Your task to perform on an android device: Open internet settings Image 0: 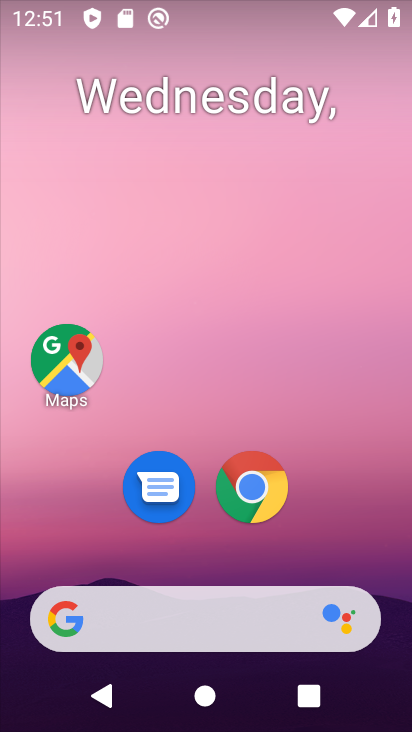
Step 0: drag from (207, 555) to (278, 133)
Your task to perform on an android device: Open internet settings Image 1: 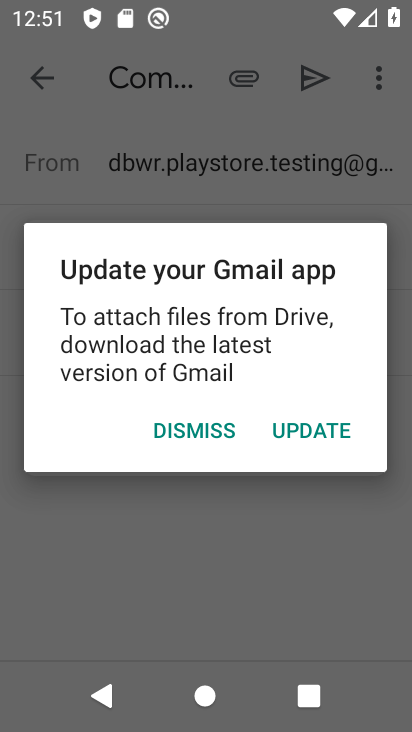
Step 1: press home button
Your task to perform on an android device: Open internet settings Image 2: 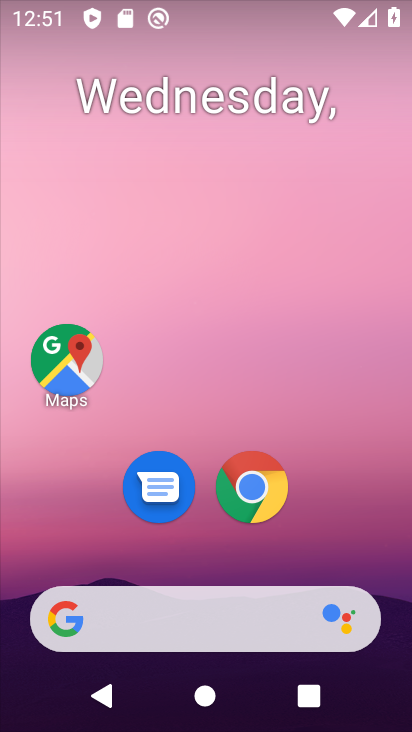
Step 2: drag from (196, 573) to (7, 229)
Your task to perform on an android device: Open internet settings Image 3: 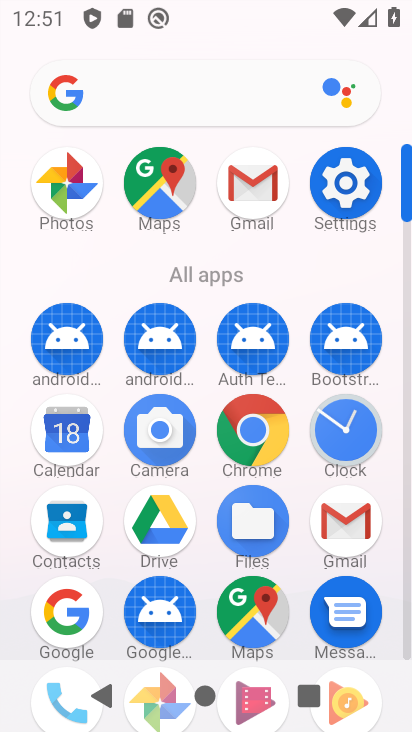
Step 3: click (348, 198)
Your task to perform on an android device: Open internet settings Image 4: 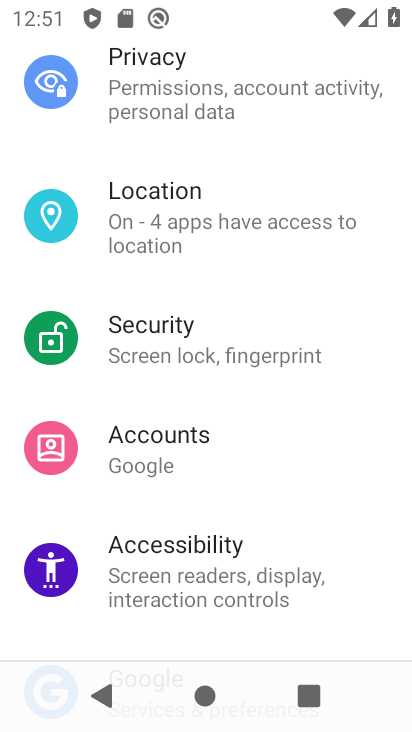
Step 4: drag from (182, 168) to (184, 546)
Your task to perform on an android device: Open internet settings Image 5: 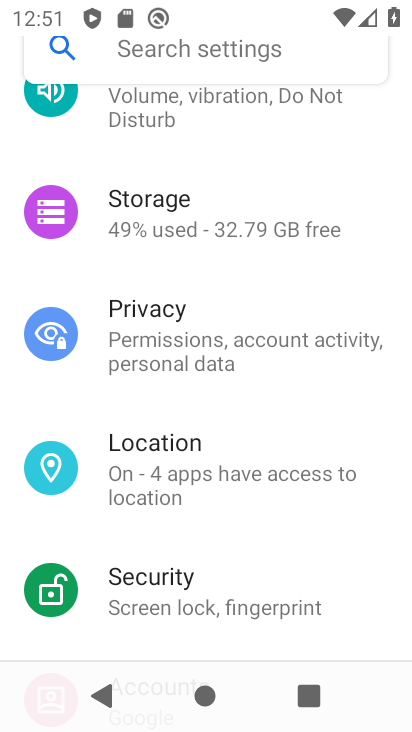
Step 5: drag from (275, 190) to (256, 627)
Your task to perform on an android device: Open internet settings Image 6: 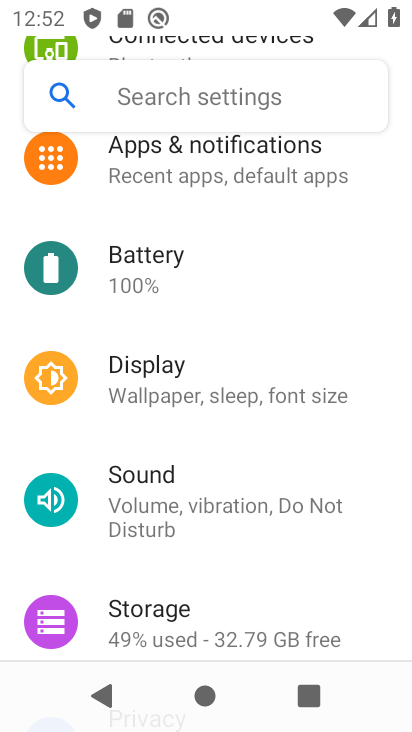
Step 6: drag from (236, 282) to (213, 547)
Your task to perform on an android device: Open internet settings Image 7: 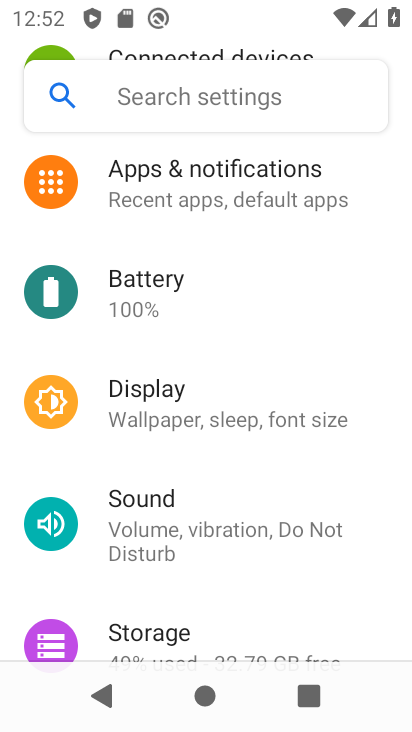
Step 7: drag from (270, 264) to (224, 603)
Your task to perform on an android device: Open internet settings Image 8: 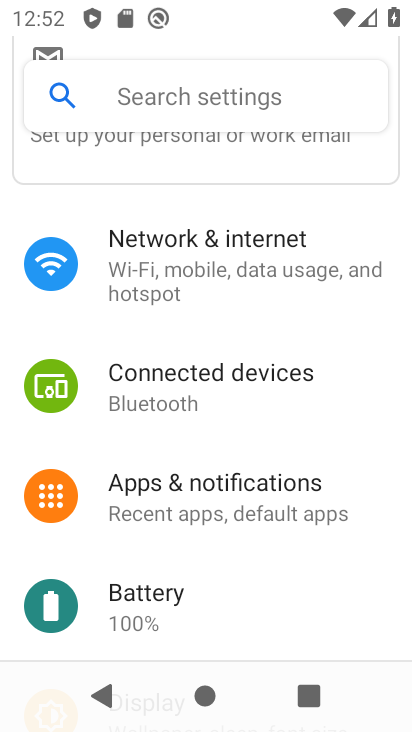
Step 8: click (237, 289)
Your task to perform on an android device: Open internet settings Image 9: 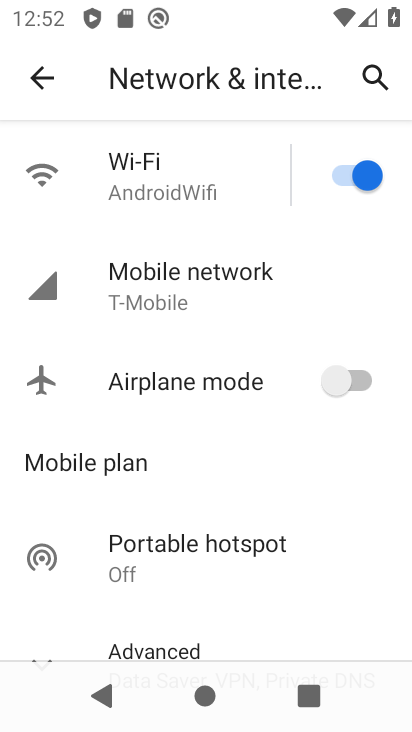
Step 9: task complete